Your task to perform on an android device: install app "Duolingo: language lessons" Image 0: 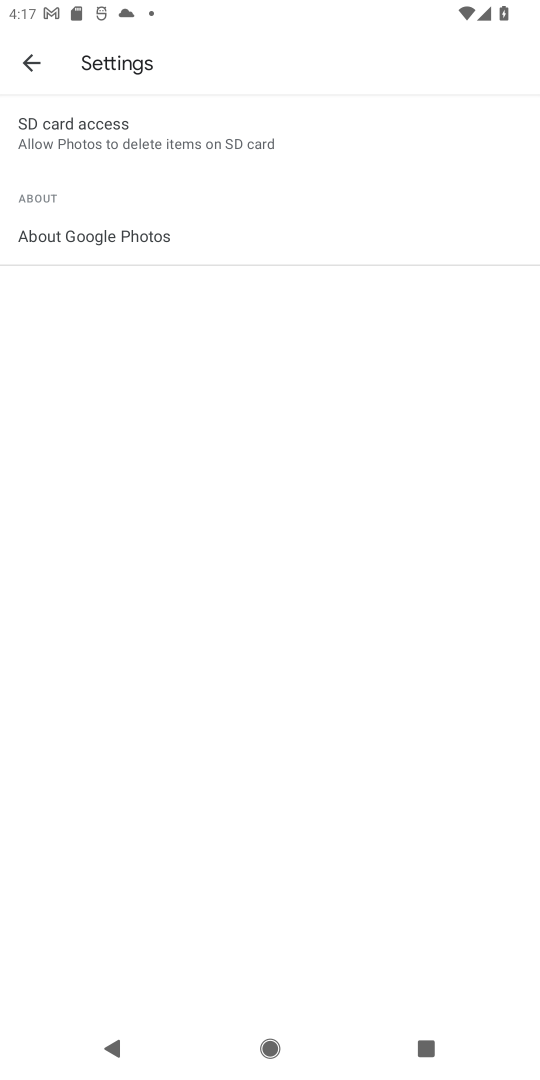
Step 0: click (9, 60)
Your task to perform on an android device: install app "Duolingo: language lessons" Image 1: 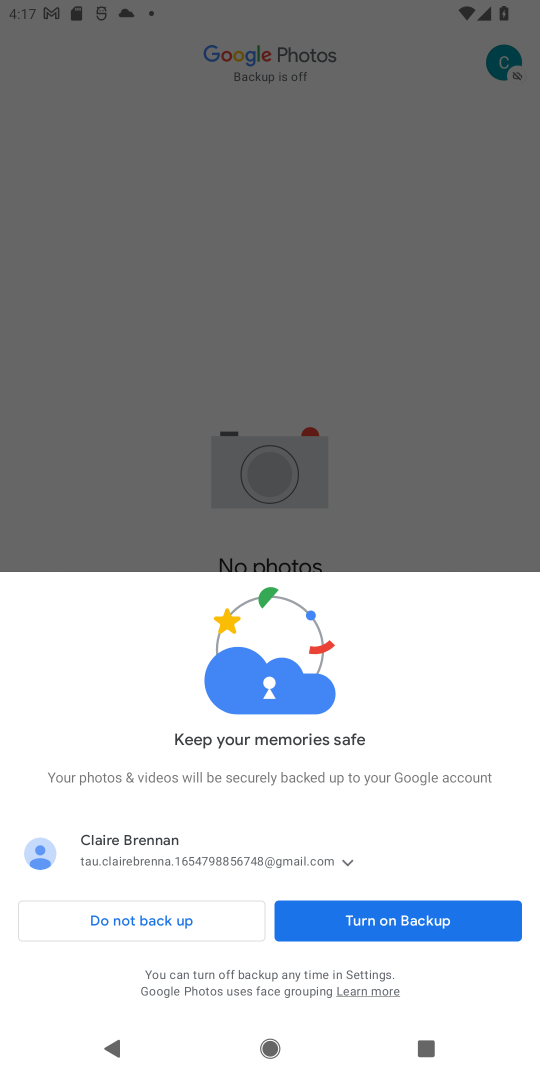
Step 1: click (158, 920)
Your task to perform on an android device: install app "Duolingo: language lessons" Image 2: 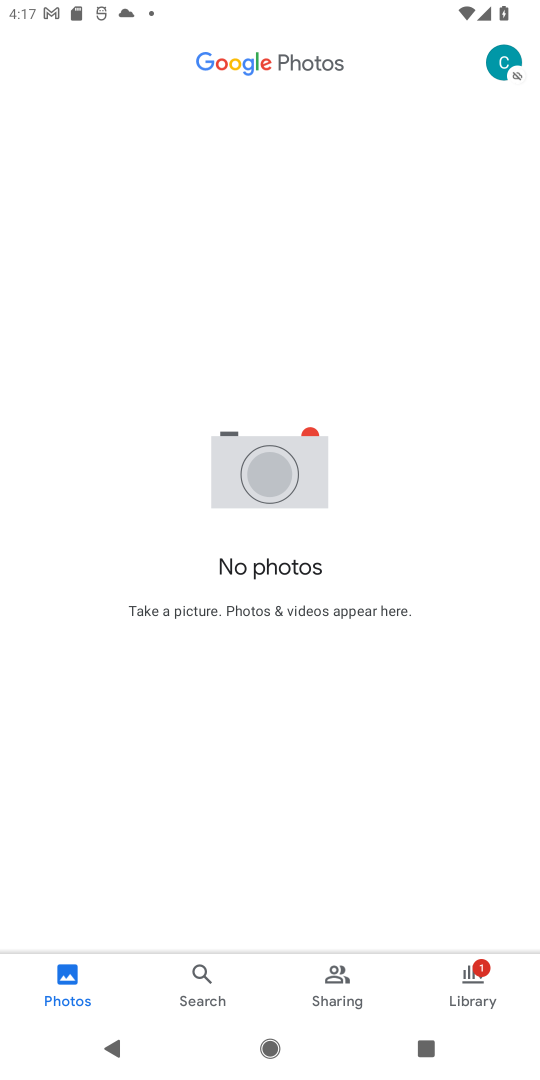
Step 2: press back button
Your task to perform on an android device: install app "Duolingo: language lessons" Image 3: 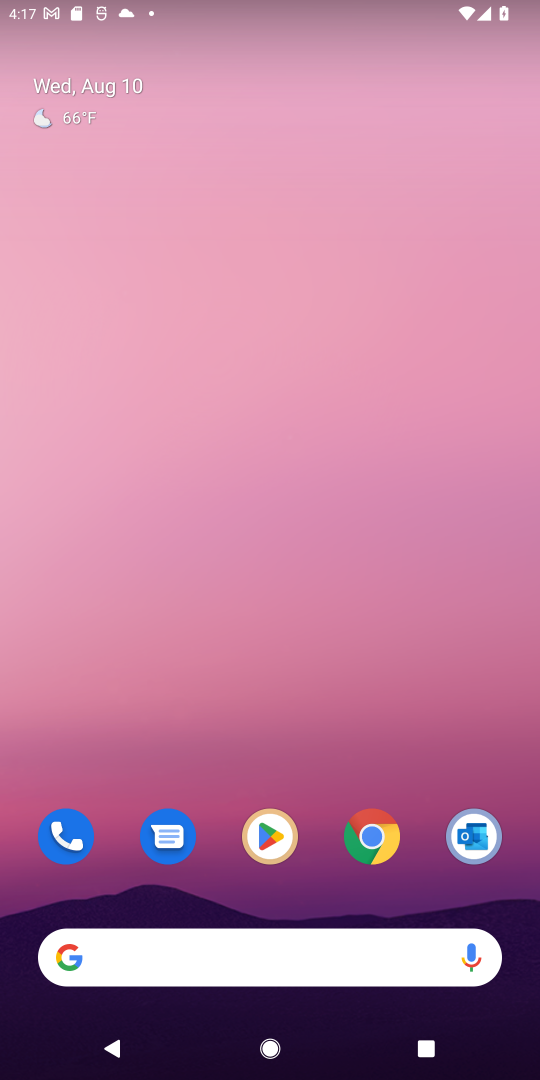
Step 3: drag from (142, 948) to (258, 218)
Your task to perform on an android device: install app "Duolingo: language lessons" Image 4: 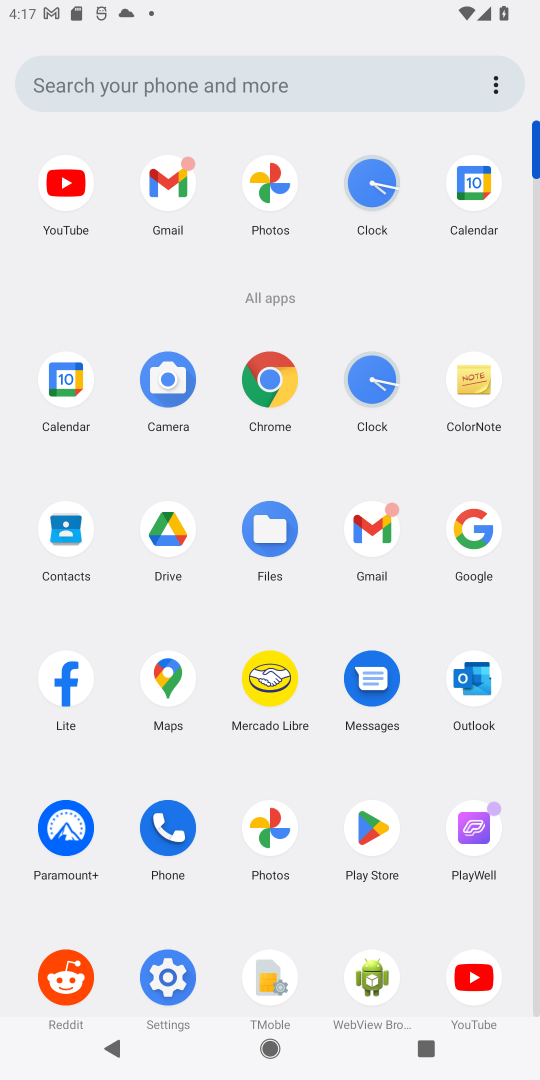
Step 4: click (353, 847)
Your task to perform on an android device: install app "Duolingo: language lessons" Image 5: 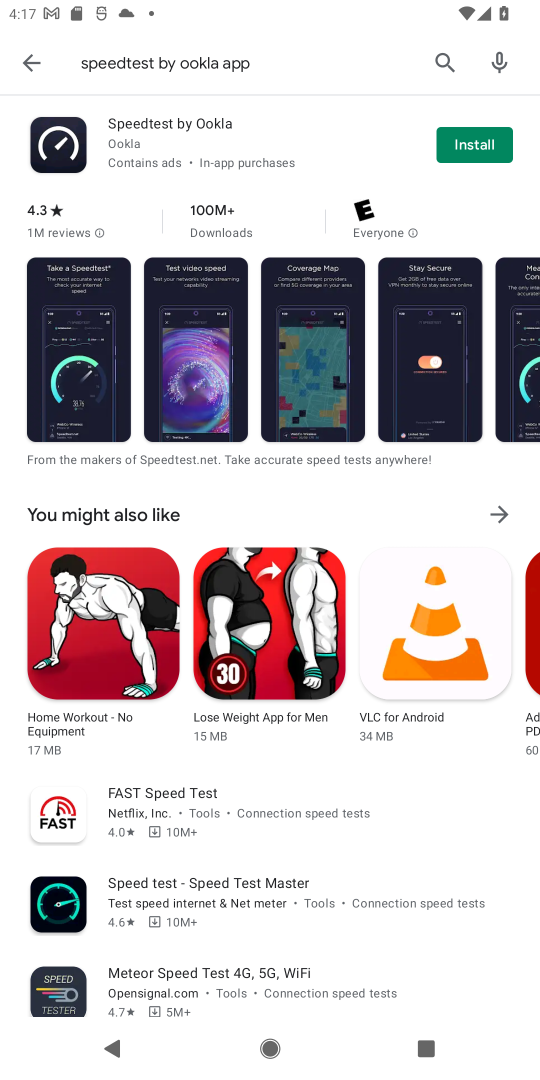
Step 5: click (35, 52)
Your task to perform on an android device: install app "Duolingo: language lessons" Image 6: 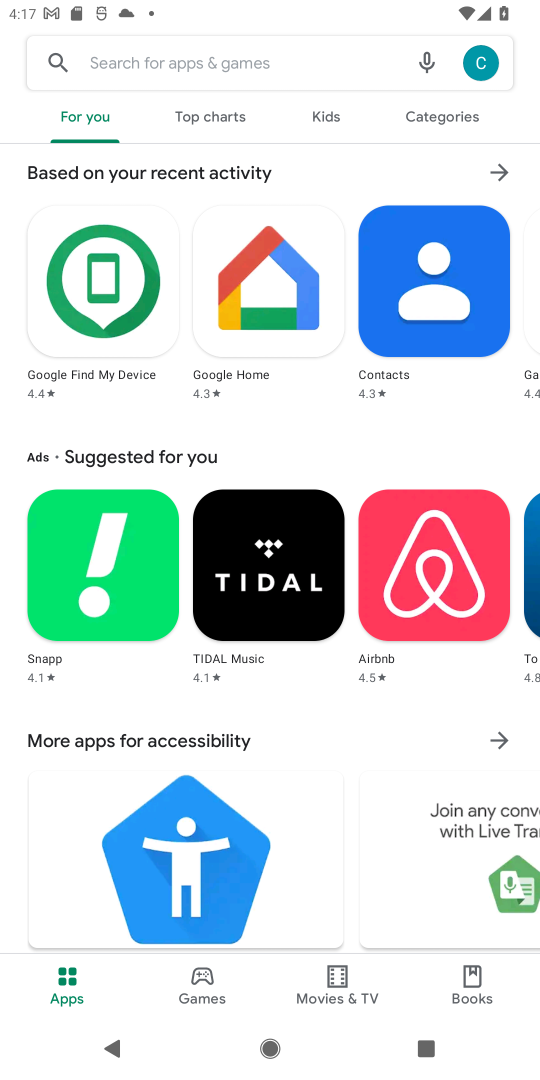
Step 6: click (149, 52)
Your task to perform on an android device: install app "Duolingo: language lessons" Image 7: 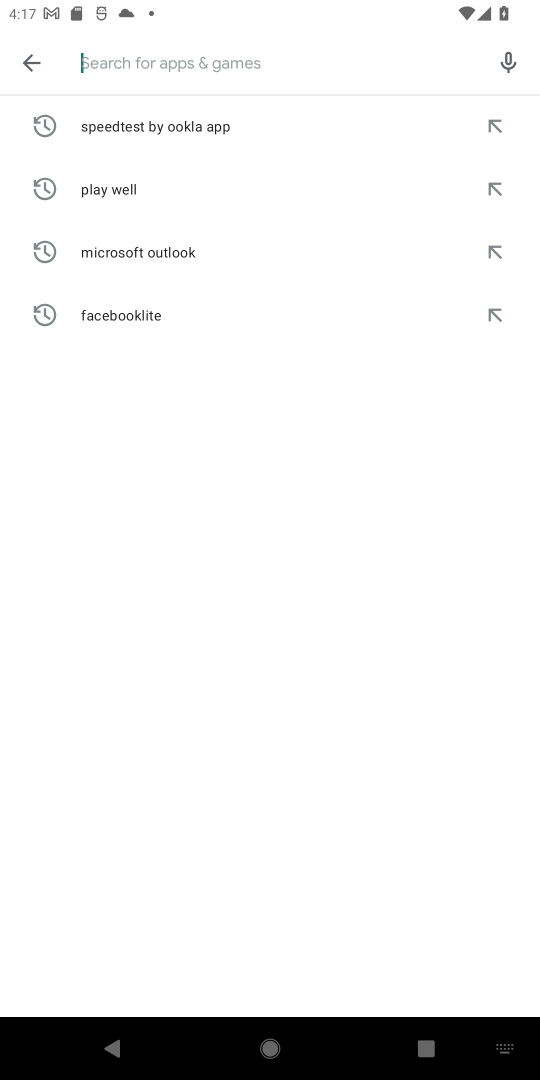
Step 7: type "Duolingo: language lessons "
Your task to perform on an android device: install app "Duolingo: language lessons" Image 8: 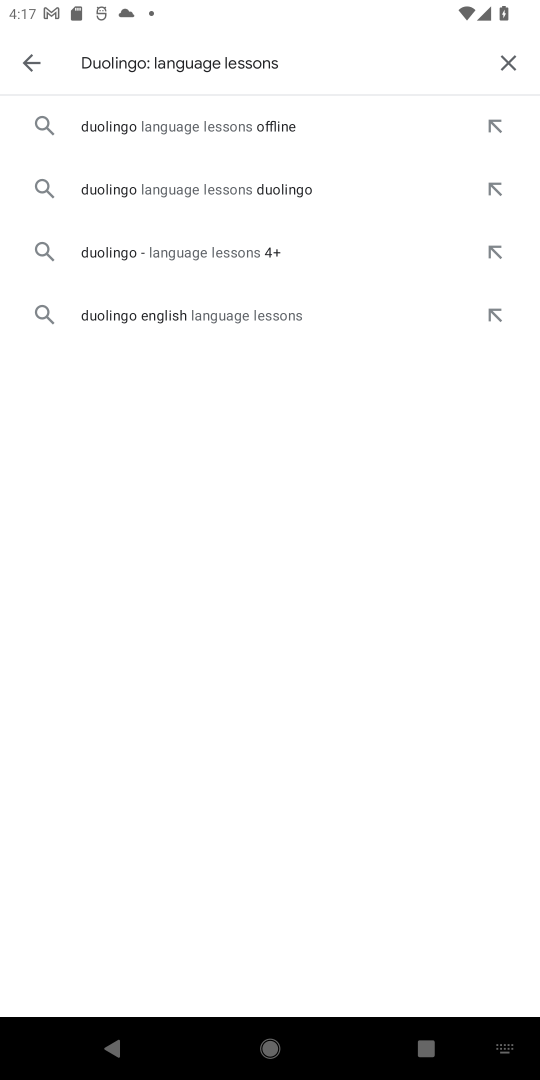
Step 8: click (244, 124)
Your task to perform on an android device: install app "Duolingo: language lessons" Image 9: 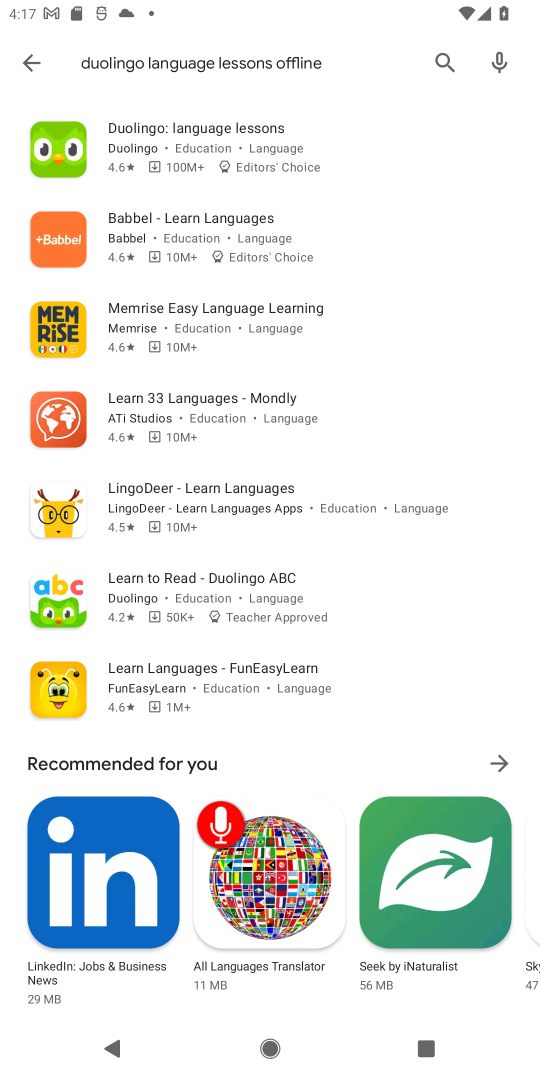
Step 9: click (244, 124)
Your task to perform on an android device: install app "Duolingo: language lessons" Image 10: 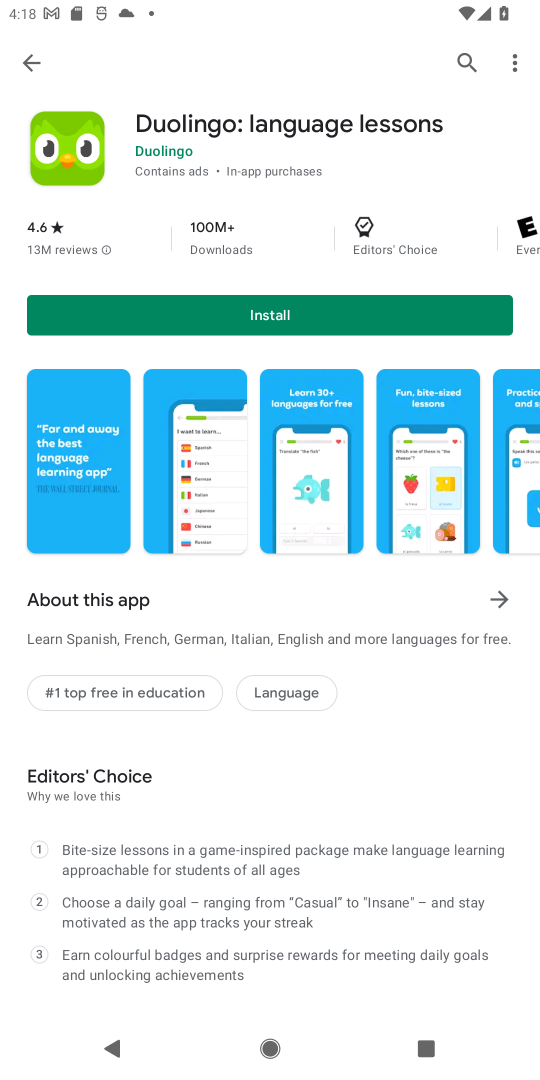
Step 10: click (347, 300)
Your task to perform on an android device: install app "Duolingo: language lessons" Image 11: 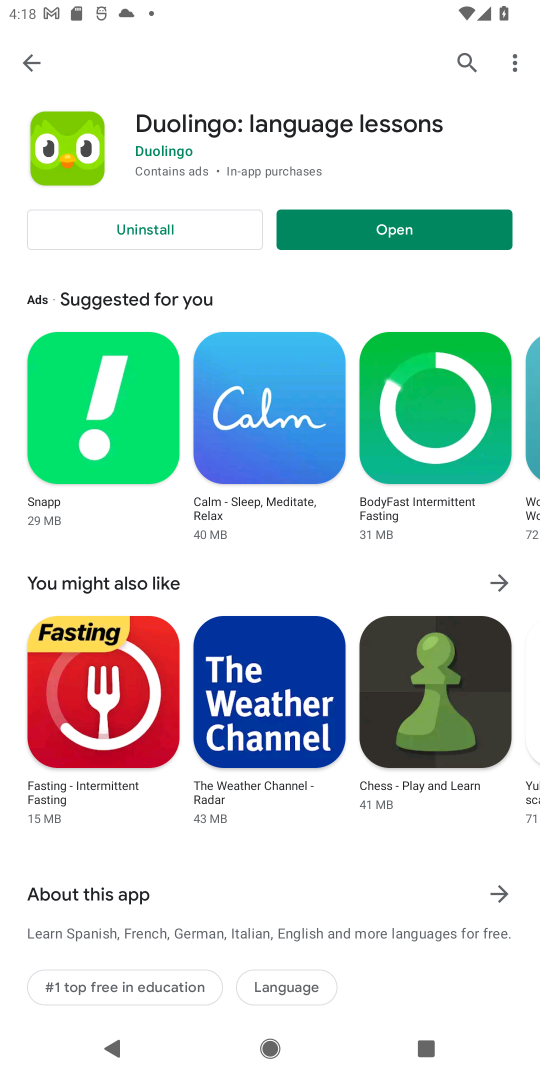
Step 11: click (379, 234)
Your task to perform on an android device: install app "Duolingo: language lessons" Image 12: 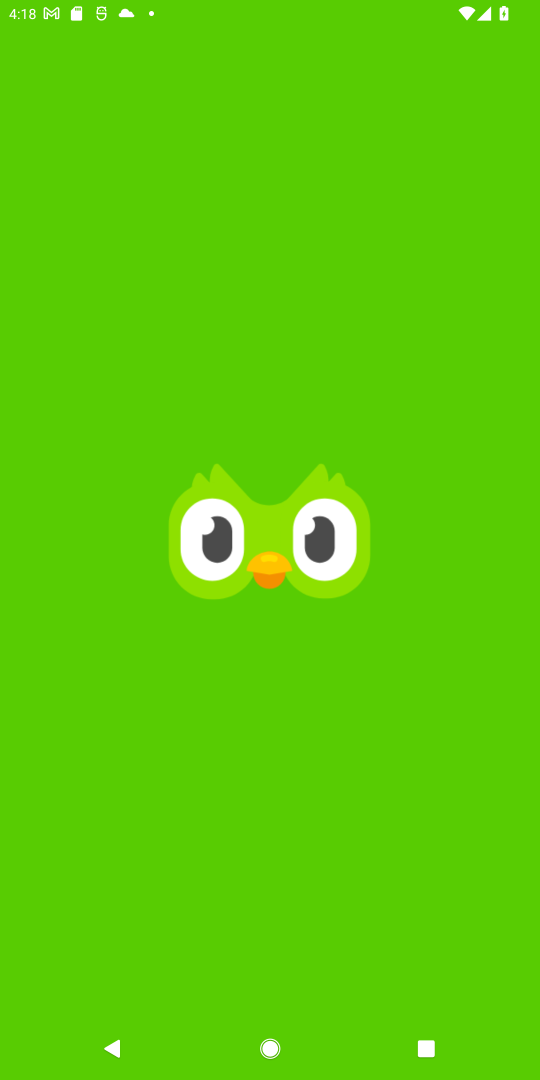
Step 12: task complete